Your task to perform on an android device: Search for vegetarian restaurants on Maps Image 0: 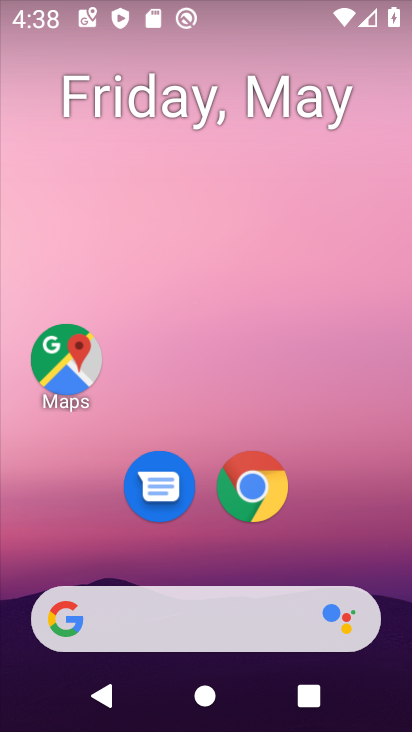
Step 0: drag from (352, 526) to (283, 14)
Your task to perform on an android device: Search for vegetarian restaurants on Maps Image 1: 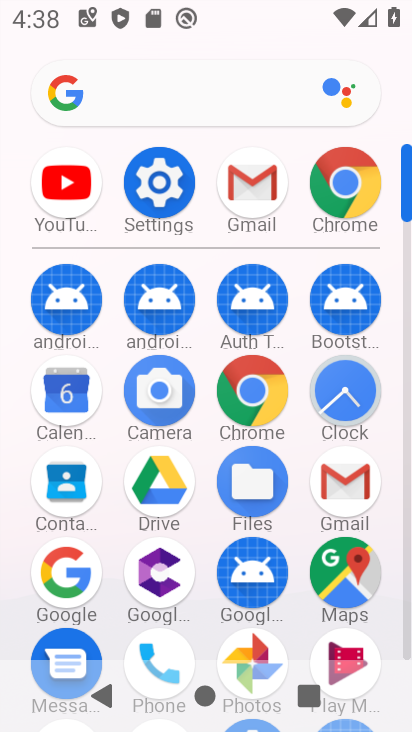
Step 1: drag from (7, 497) to (16, 217)
Your task to perform on an android device: Search for vegetarian restaurants on Maps Image 2: 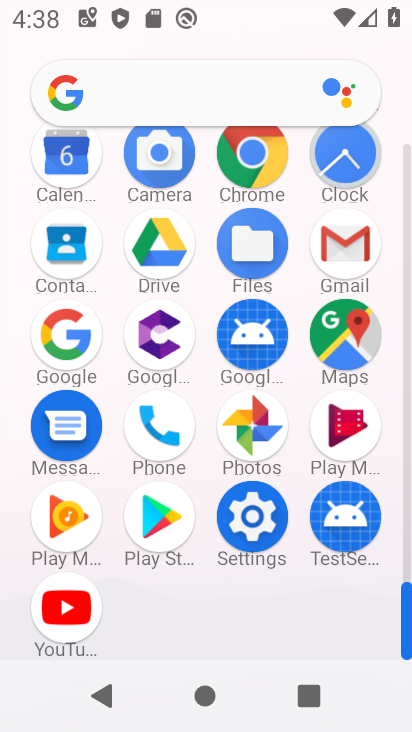
Step 2: click (345, 333)
Your task to perform on an android device: Search for vegetarian restaurants on Maps Image 3: 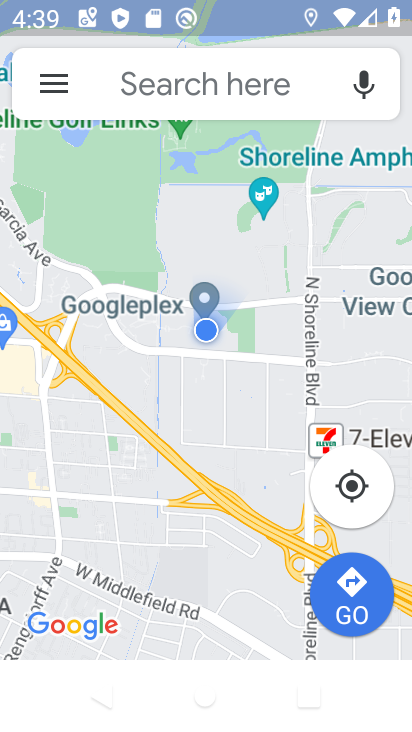
Step 3: click (254, 81)
Your task to perform on an android device: Search for vegetarian restaurants on Maps Image 4: 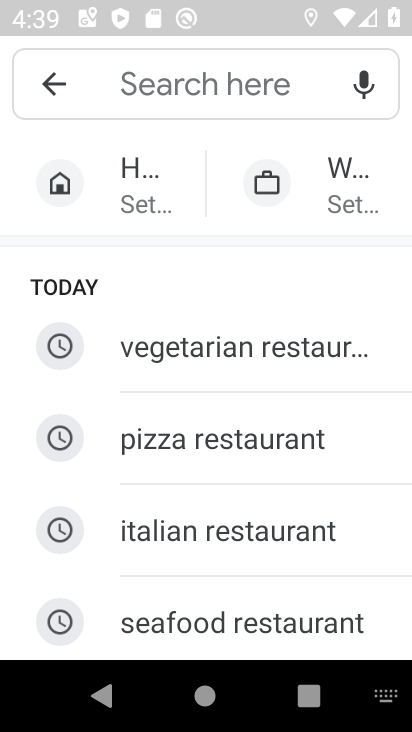
Step 4: click (195, 328)
Your task to perform on an android device: Search for vegetarian restaurants on Maps Image 5: 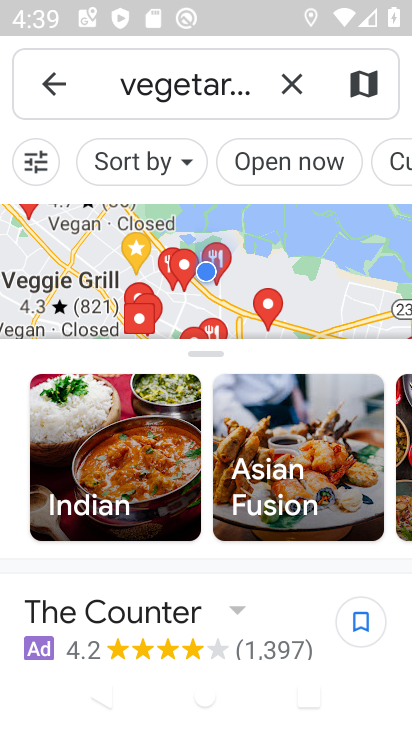
Step 5: task complete